Your task to perform on an android device: open sync settings in chrome Image 0: 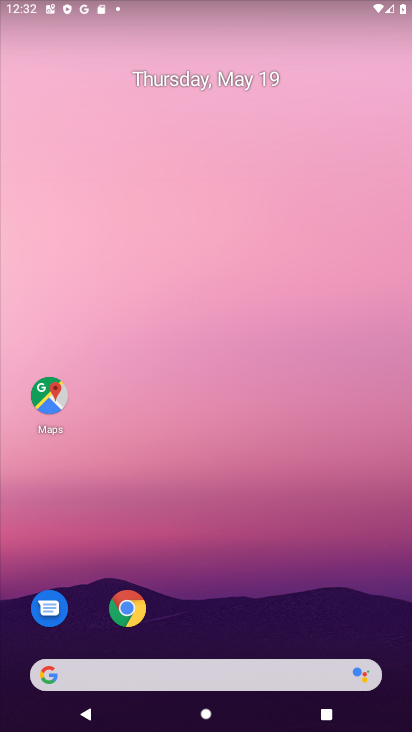
Step 0: drag from (255, 594) to (284, 317)
Your task to perform on an android device: open sync settings in chrome Image 1: 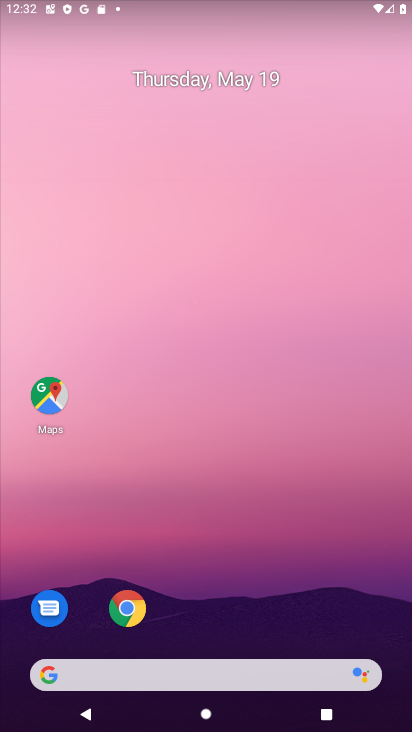
Step 1: drag from (203, 599) to (252, 314)
Your task to perform on an android device: open sync settings in chrome Image 2: 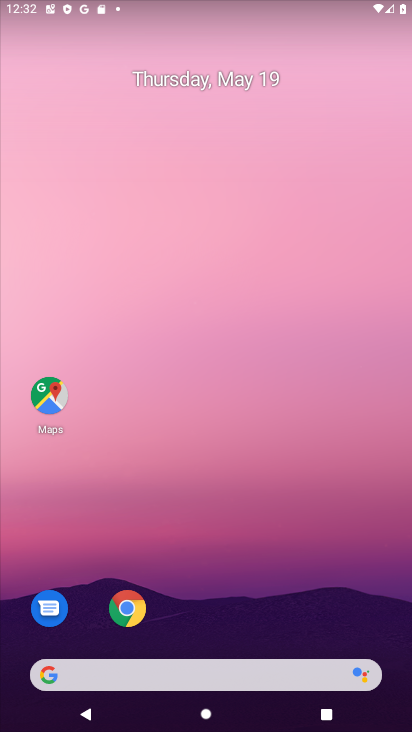
Step 2: drag from (230, 609) to (263, 272)
Your task to perform on an android device: open sync settings in chrome Image 3: 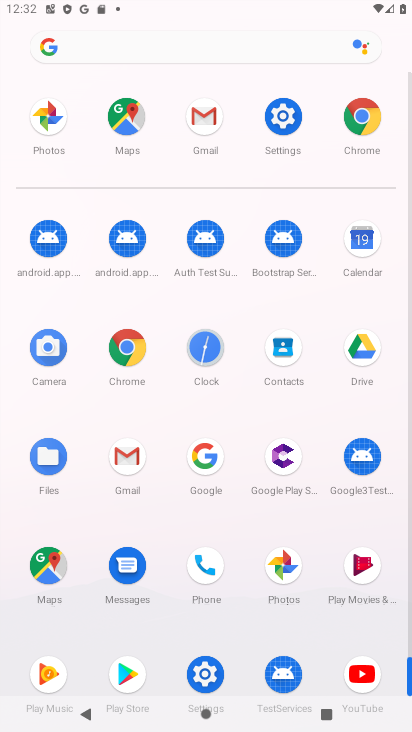
Step 3: click (343, 119)
Your task to perform on an android device: open sync settings in chrome Image 4: 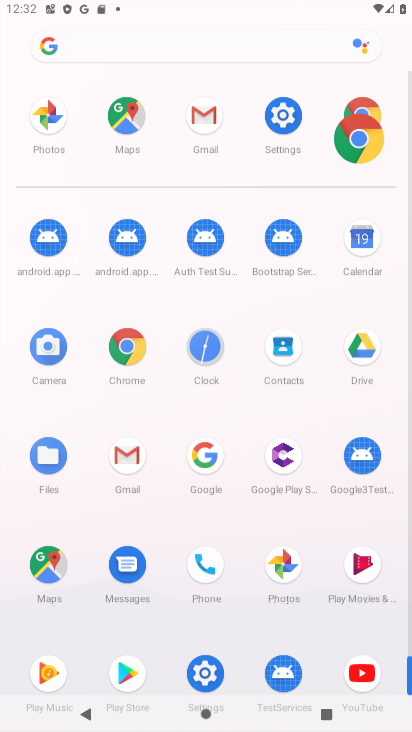
Step 4: click (349, 113)
Your task to perform on an android device: open sync settings in chrome Image 5: 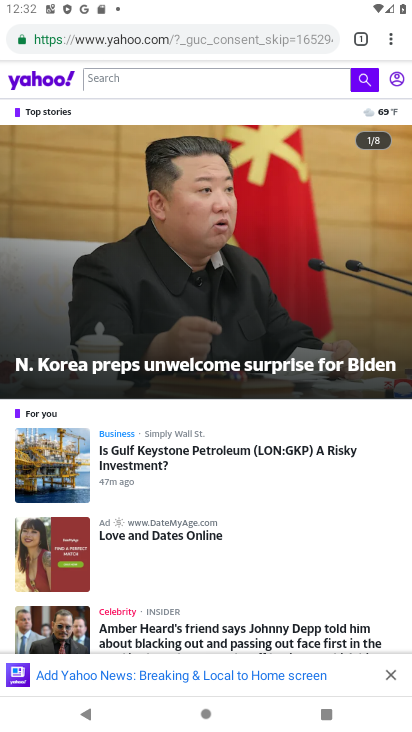
Step 5: click (381, 43)
Your task to perform on an android device: open sync settings in chrome Image 6: 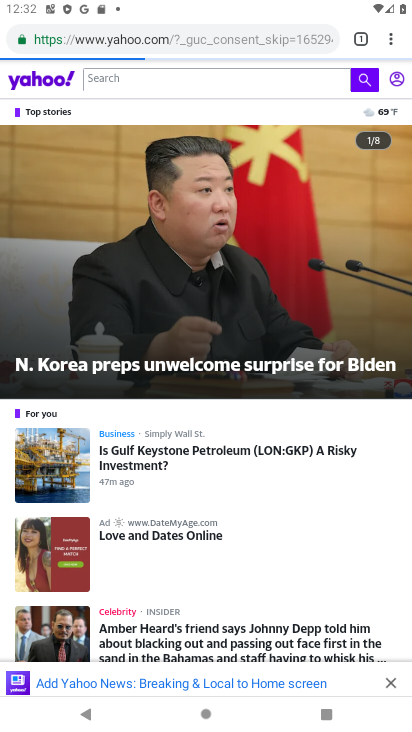
Step 6: click (392, 36)
Your task to perform on an android device: open sync settings in chrome Image 7: 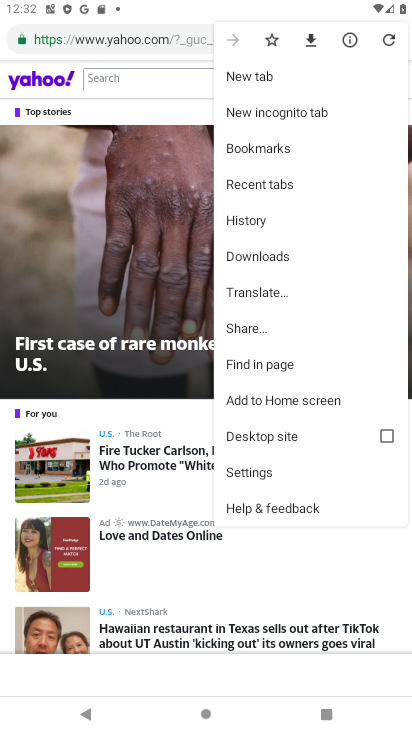
Step 7: click (264, 464)
Your task to perform on an android device: open sync settings in chrome Image 8: 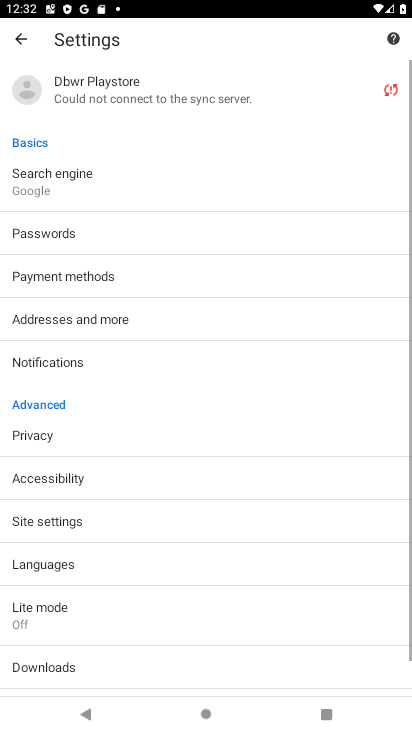
Step 8: click (121, 86)
Your task to perform on an android device: open sync settings in chrome Image 9: 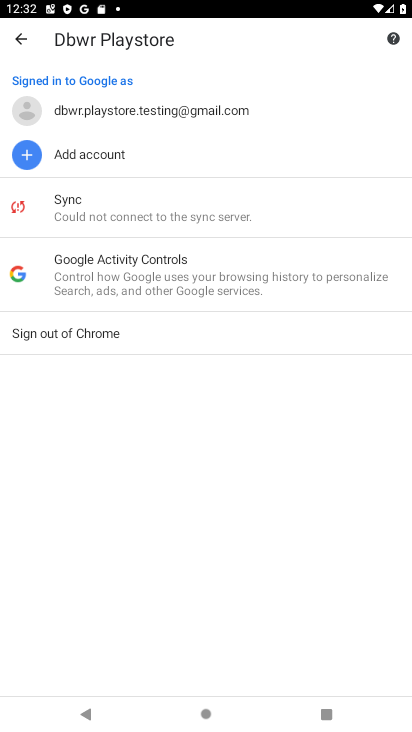
Step 9: task complete